Your task to perform on an android device: Search for Italian restaurants on Maps Image 0: 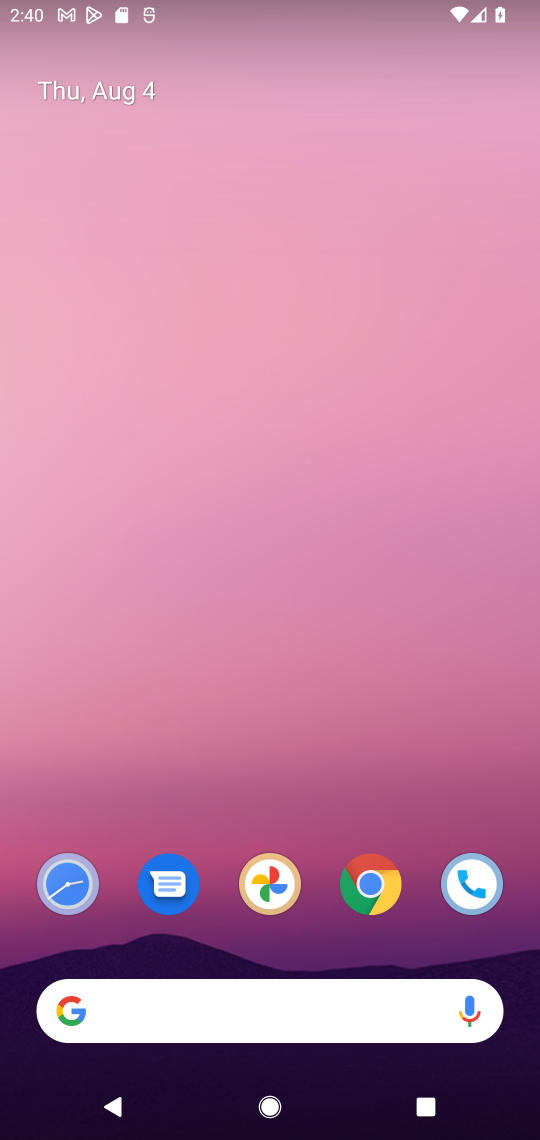
Step 0: drag from (329, 949) to (108, 47)
Your task to perform on an android device: Search for Italian restaurants on Maps Image 1: 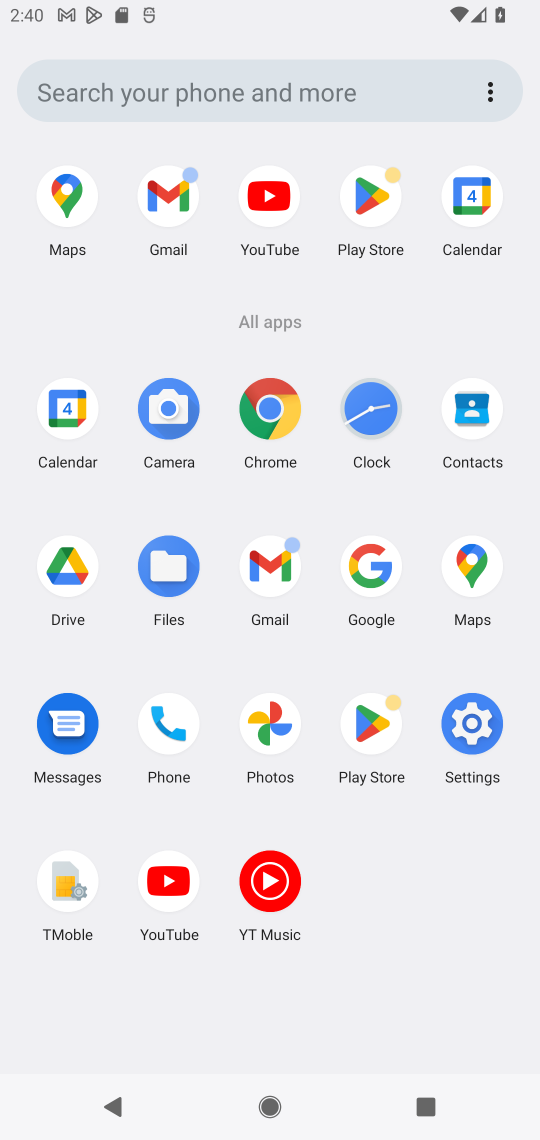
Step 1: click (86, 209)
Your task to perform on an android device: Search for Italian restaurants on Maps Image 2: 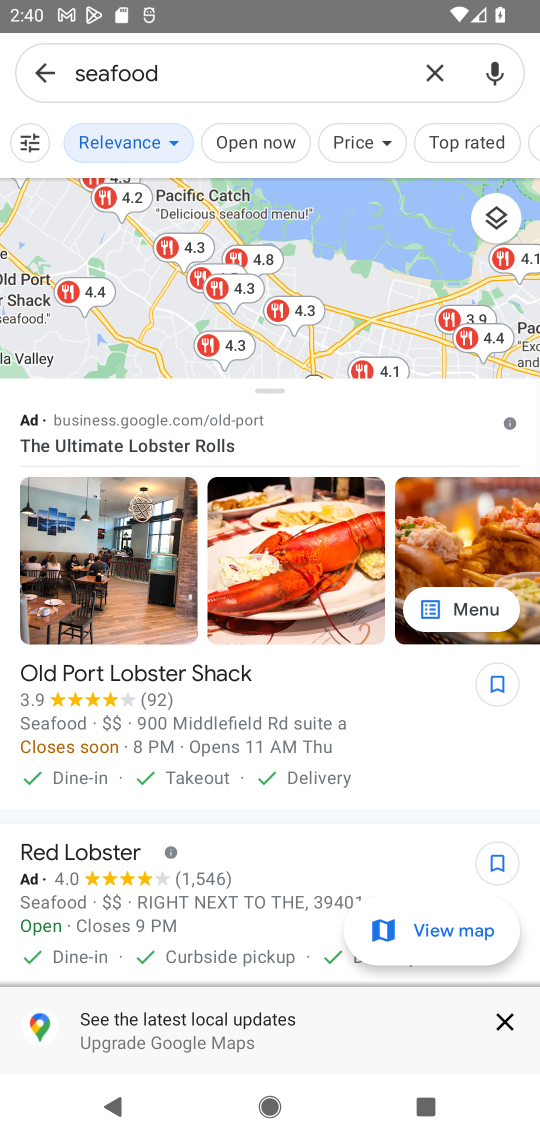
Step 2: click (423, 81)
Your task to perform on an android device: Search for Italian restaurants on Maps Image 3: 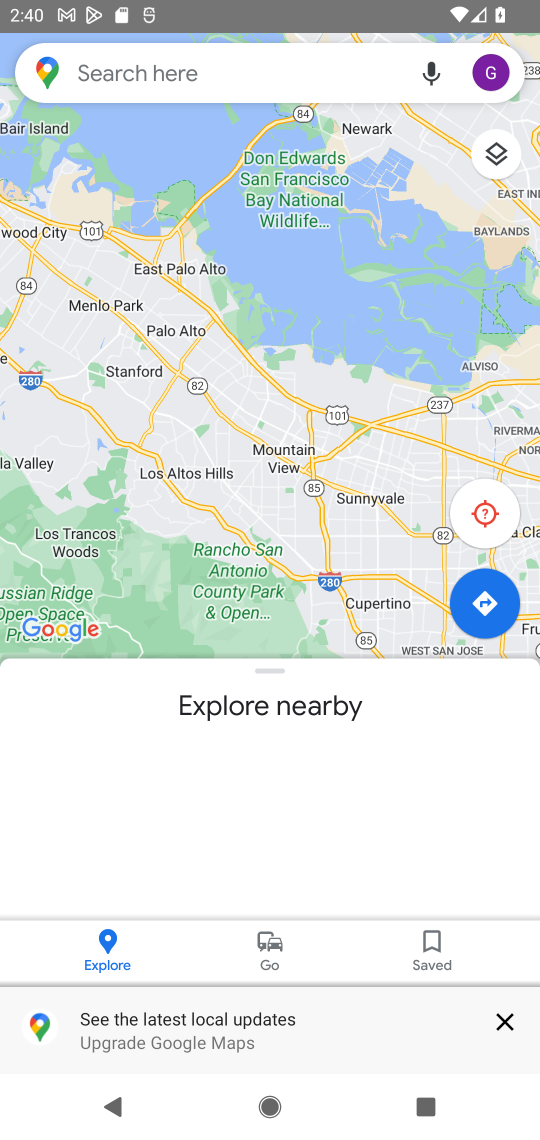
Step 3: click (302, 81)
Your task to perform on an android device: Search for Italian restaurants on Maps Image 4: 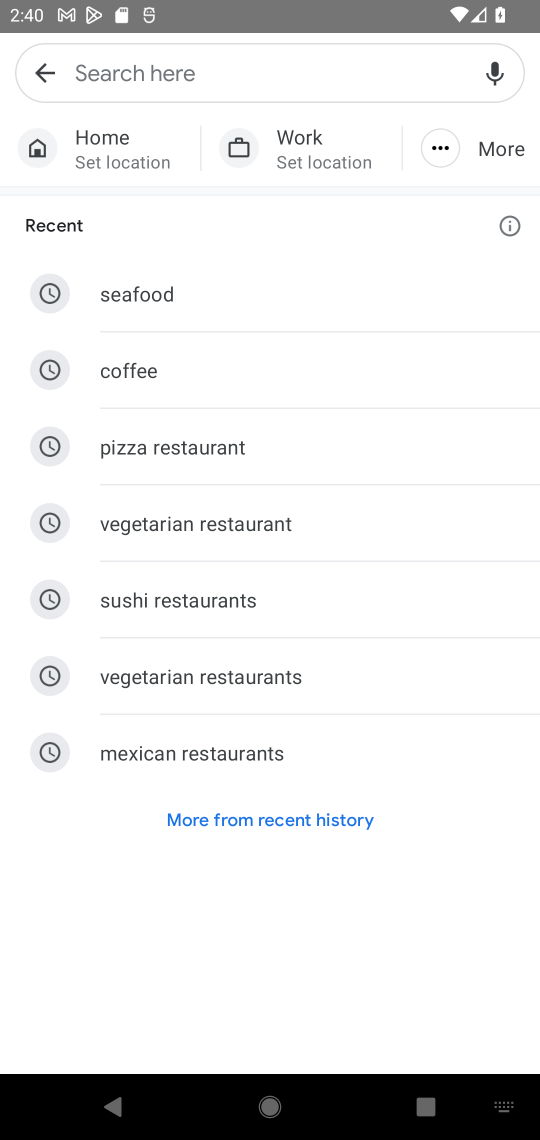
Step 4: click (302, 81)
Your task to perform on an android device: Search for Italian restaurants on Maps Image 5: 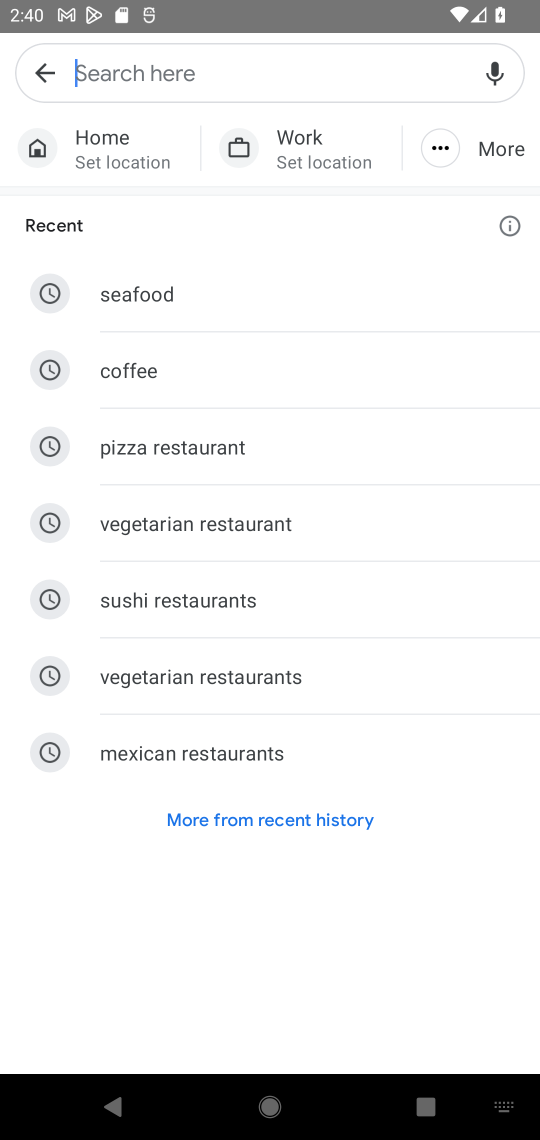
Step 5: type "italian"
Your task to perform on an android device: Search for Italian restaurants on Maps Image 6: 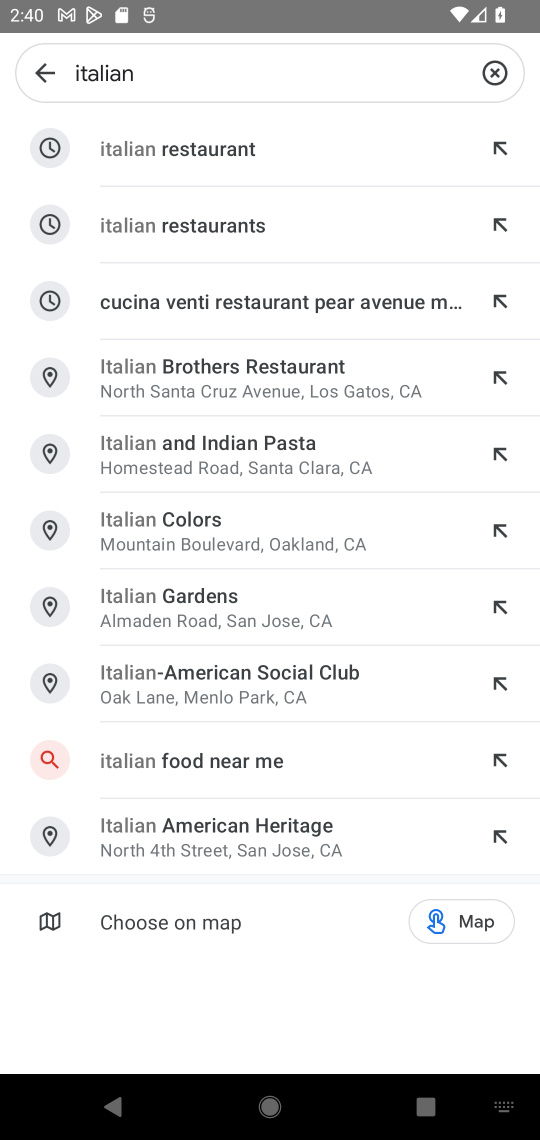
Step 6: click (326, 236)
Your task to perform on an android device: Search for Italian restaurants on Maps Image 7: 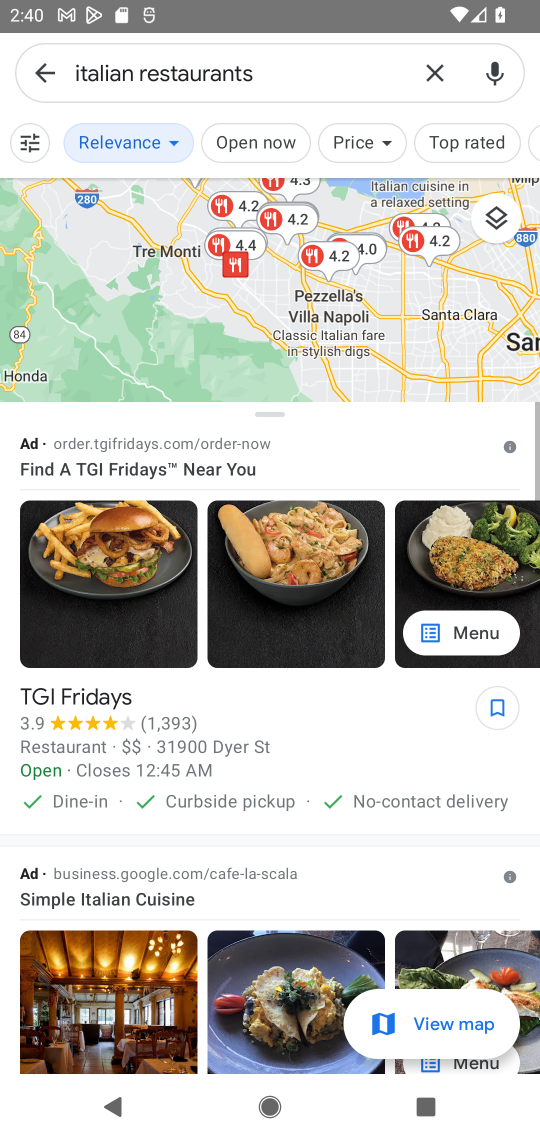
Step 7: task complete